Your task to perform on an android device: Go to ESPN.com Image 0: 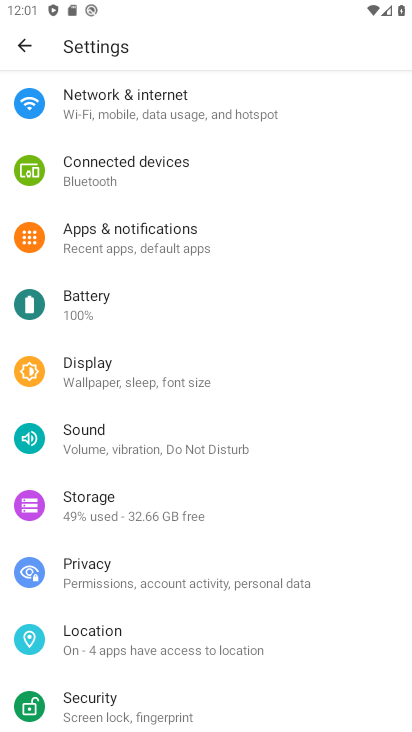
Step 0: press home button
Your task to perform on an android device: Go to ESPN.com Image 1: 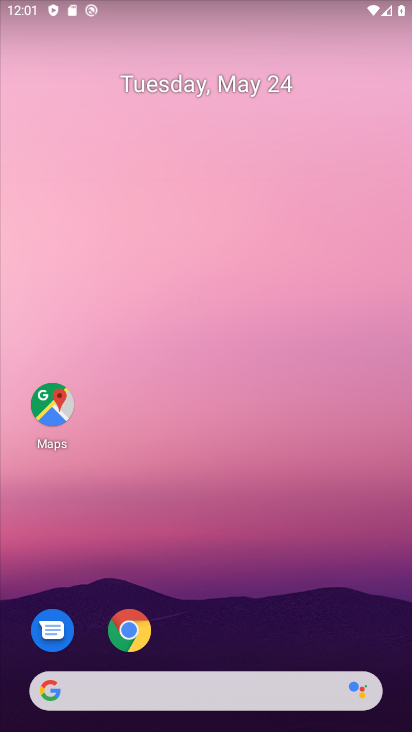
Step 1: click (146, 643)
Your task to perform on an android device: Go to ESPN.com Image 2: 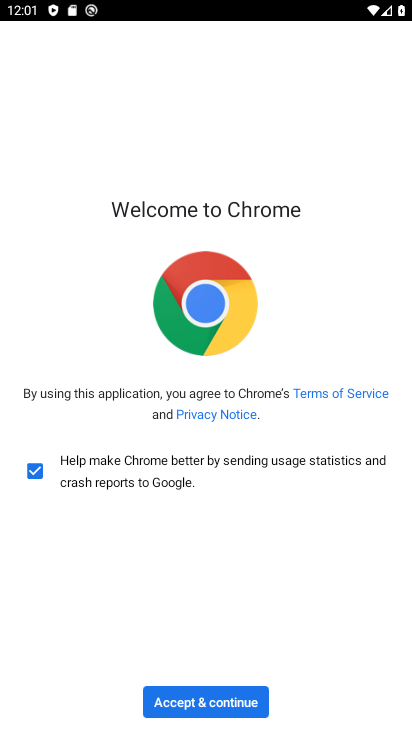
Step 2: click (205, 714)
Your task to perform on an android device: Go to ESPN.com Image 3: 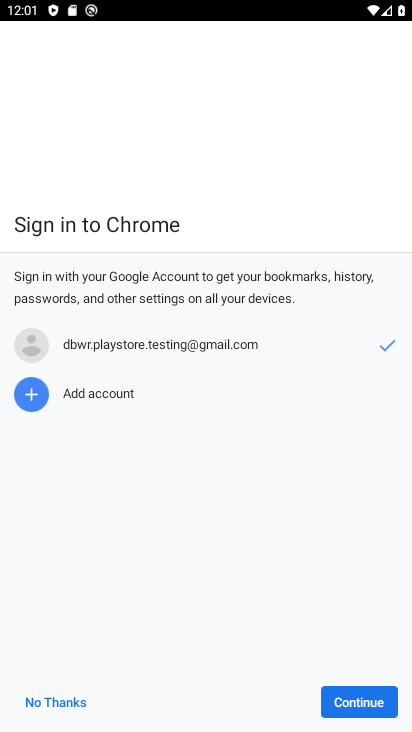
Step 3: click (369, 713)
Your task to perform on an android device: Go to ESPN.com Image 4: 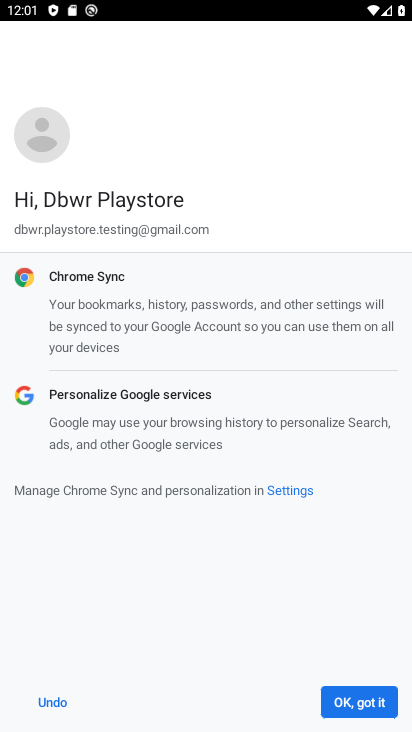
Step 4: click (369, 713)
Your task to perform on an android device: Go to ESPN.com Image 5: 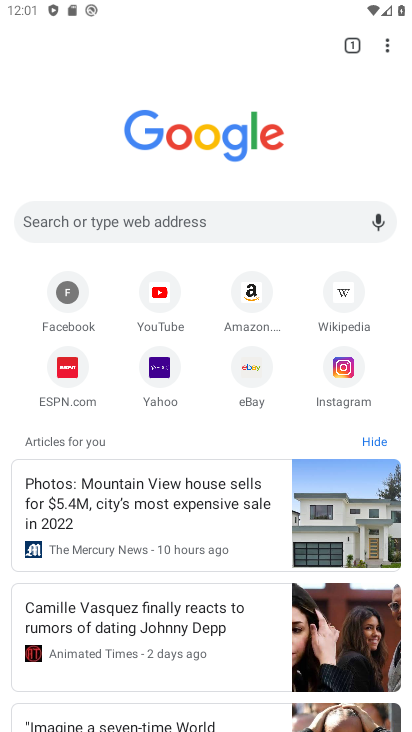
Step 5: click (60, 365)
Your task to perform on an android device: Go to ESPN.com Image 6: 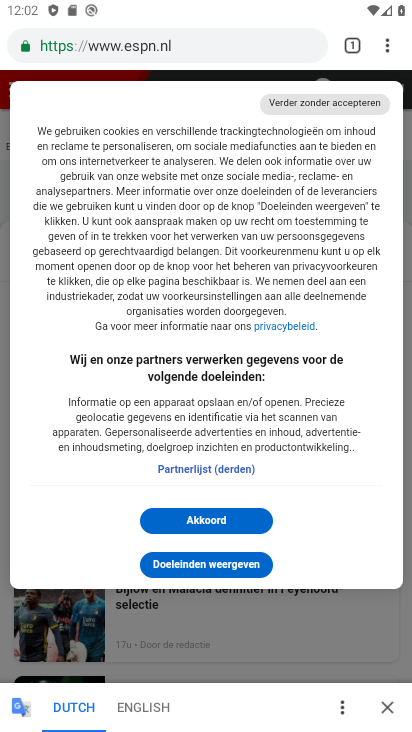
Step 6: task complete